Your task to perform on an android device: turn off location history Image 0: 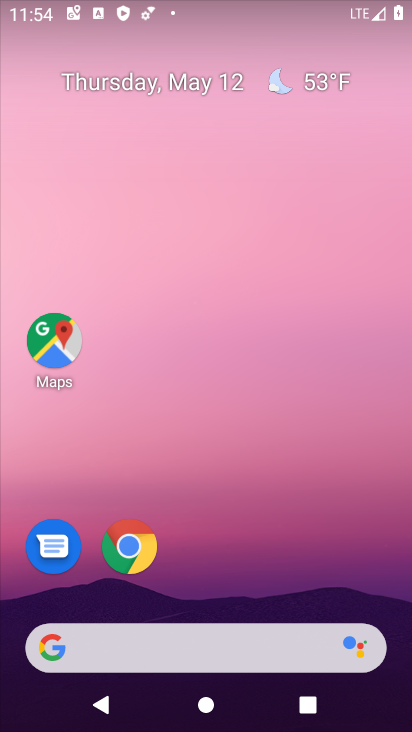
Step 0: drag from (260, 623) to (351, 242)
Your task to perform on an android device: turn off location history Image 1: 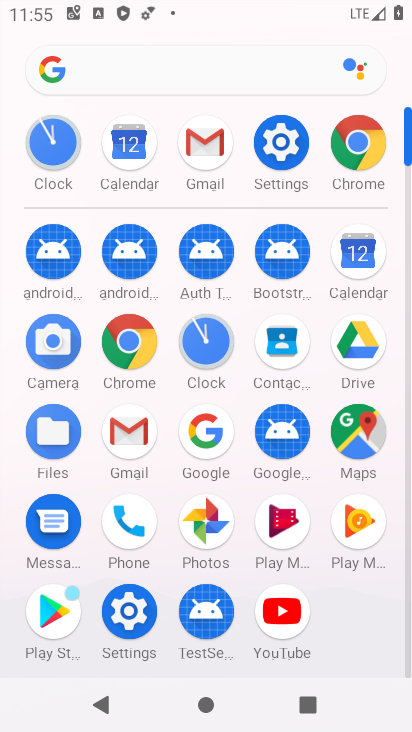
Step 1: click (270, 156)
Your task to perform on an android device: turn off location history Image 2: 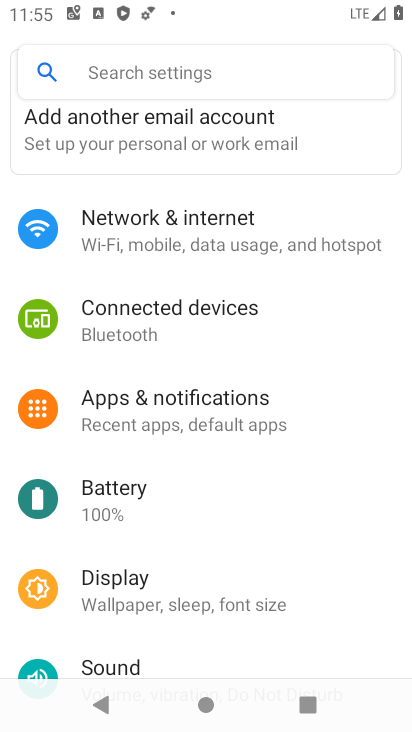
Step 2: click (165, 72)
Your task to perform on an android device: turn off location history Image 3: 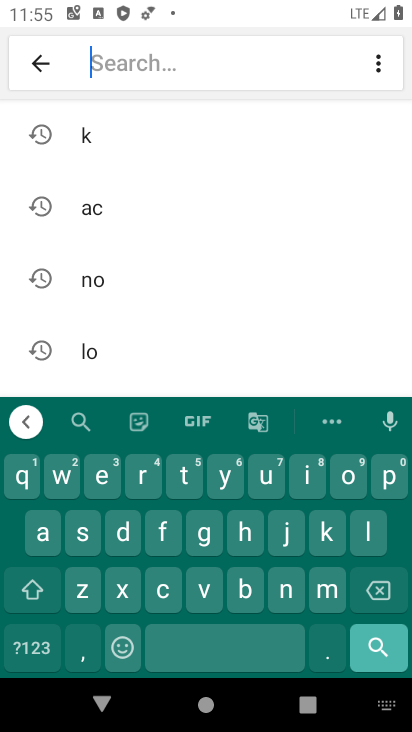
Step 3: click (366, 542)
Your task to perform on an android device: turn off location history Image 4: 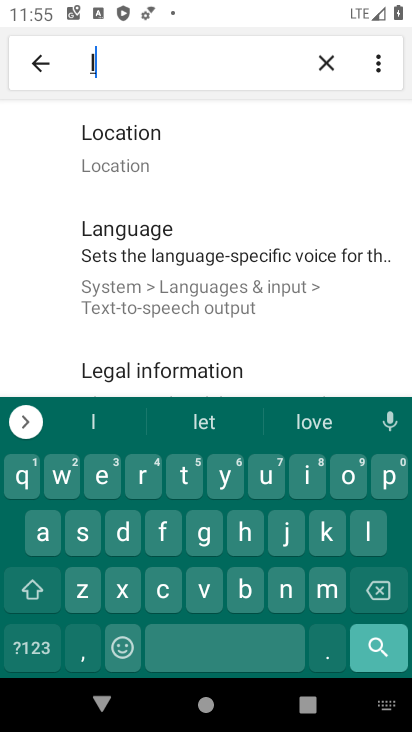
Step 4: click (134, 147)
Your task to perform on an android device: turn off location history Image 5: 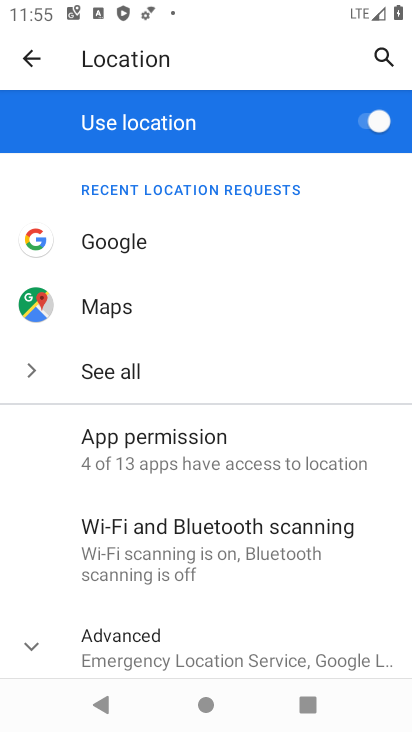
Step 5: click (40, 649)
Your task to perform on an android device: turn off location history Image 6: 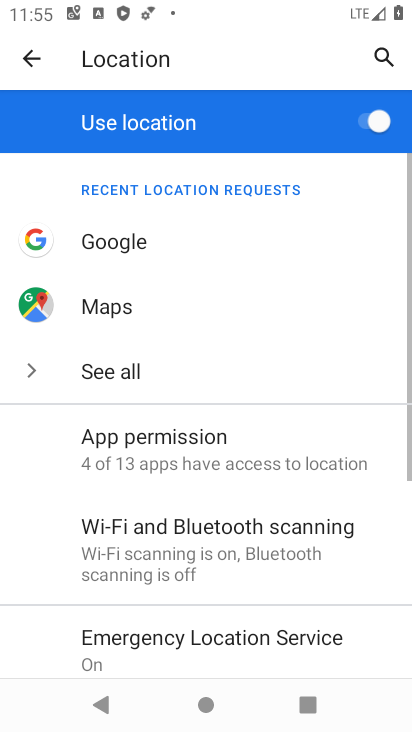
Step 6: drag from (174, 556) to (327, 346)
Your task to perform on an android device: turn off location history Image 7: 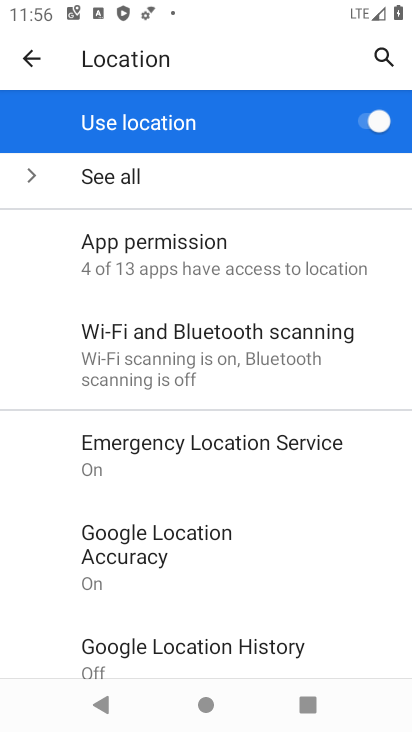
Step 7: click (177, 639)
Your task to perform on an android device: turn off location history Image 8: 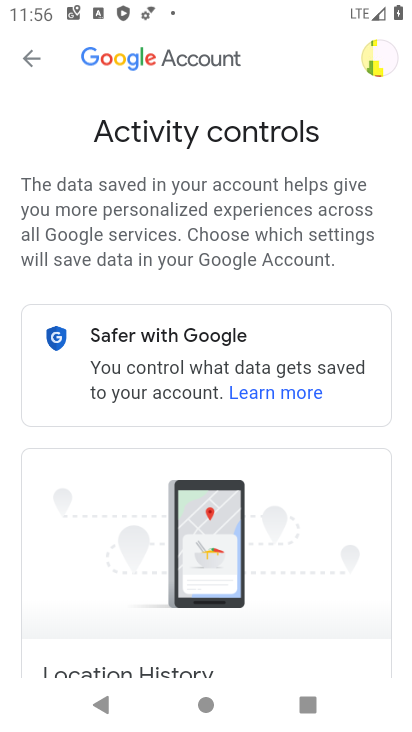
Step 8: task complete